Your task to perform on an android device: Open location settings Image 0: 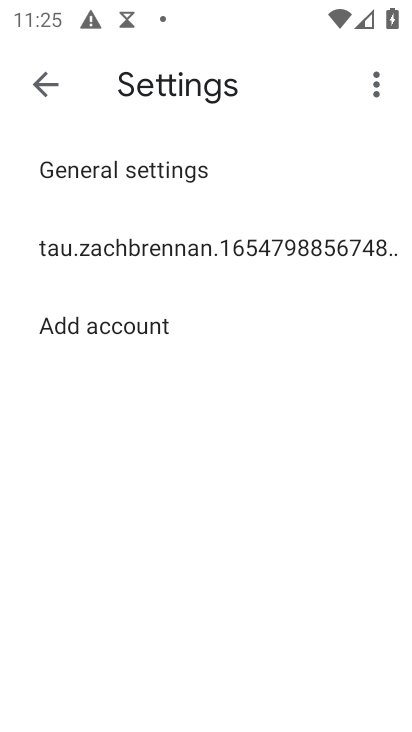
Step 0: press home button
Your task to perform on an android device: Open location settings Image 1: 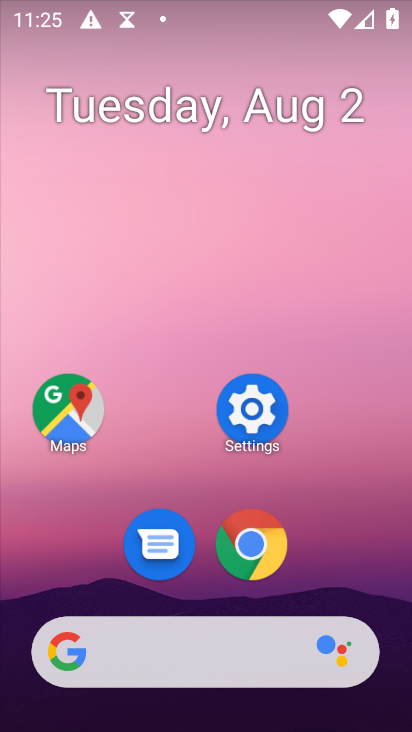
Step 1: click (261, 408)
Your task to perform on an android device: Open location settings Image 2: 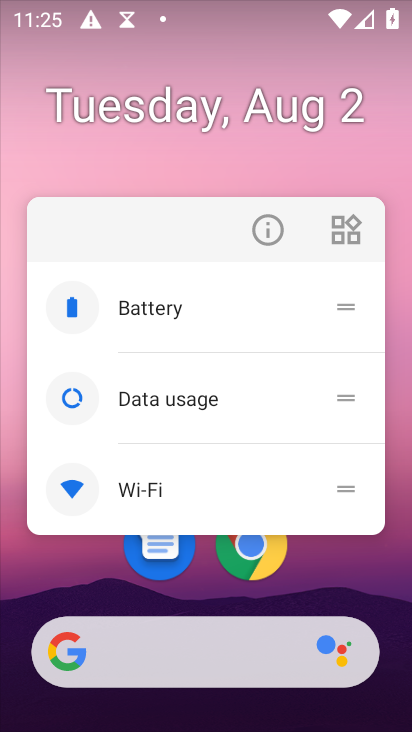
Step 2: click (369, 558)
Your task to perform on an android device: Open location settings Image 3: 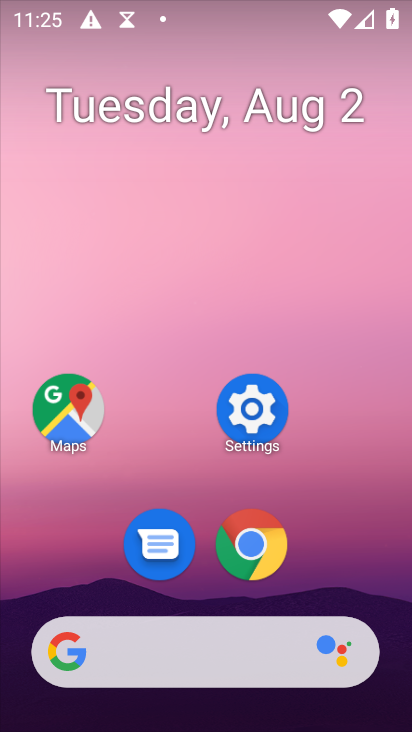
Step 3: click (248, 405)
Your task to perform on an android device: Open location settings Image 4: 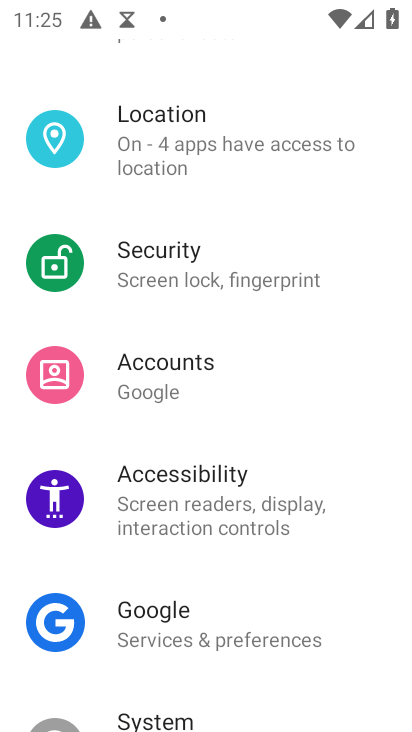
Step 4: click (179, 128)
Your task to perform on an android device: Open location settings Image 5: 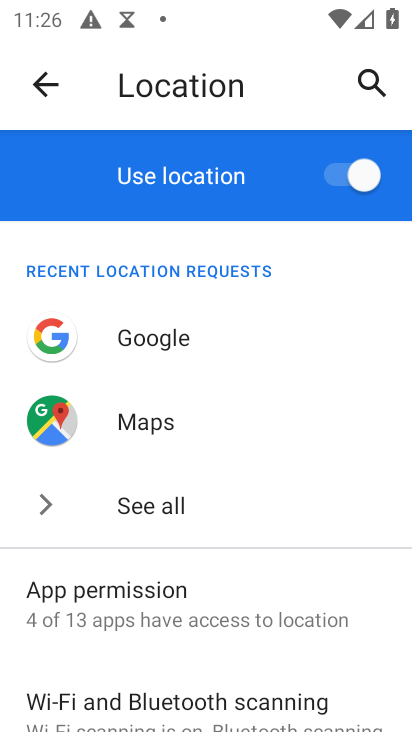
Step 5: task complete